Your task to perform on an android device: Open network settings Image 0: 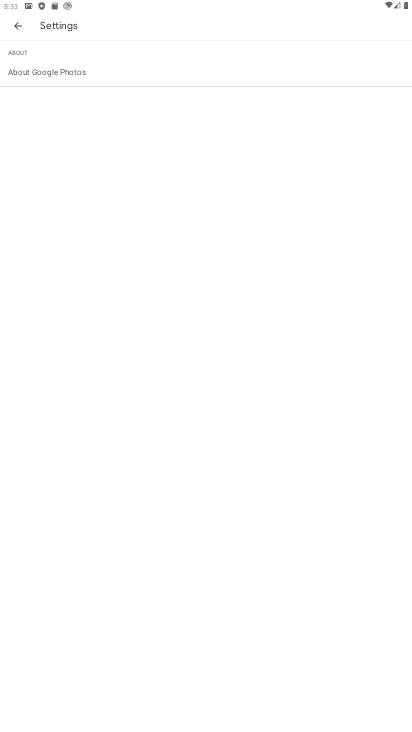
Step 0: press home button
Your task to perform on an android device: Open network settings Image 1: 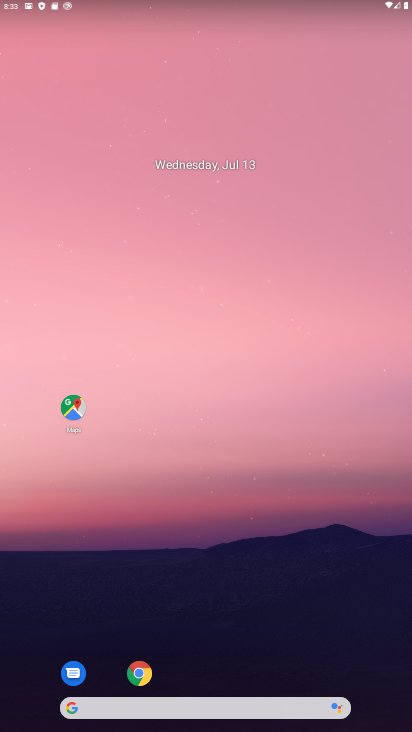
Step 1: drag from (179, 596) to (154, 403)
Your task to perform on an android device: Open network settings Image 2: 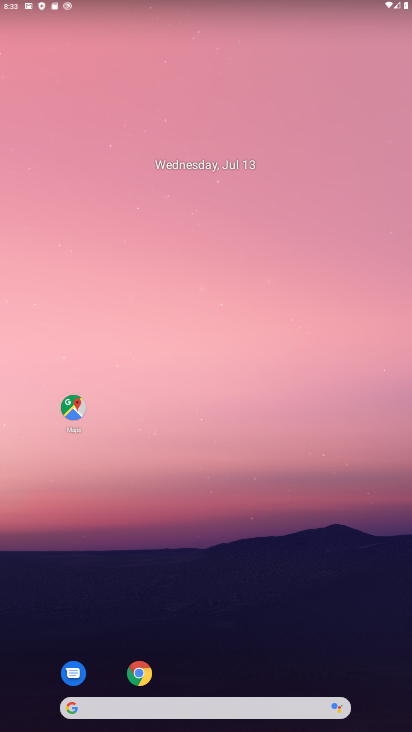
Step 2: drag from (211, 680) to (216, 304)
Your task to perform on an android device: Open network settings Image 3: 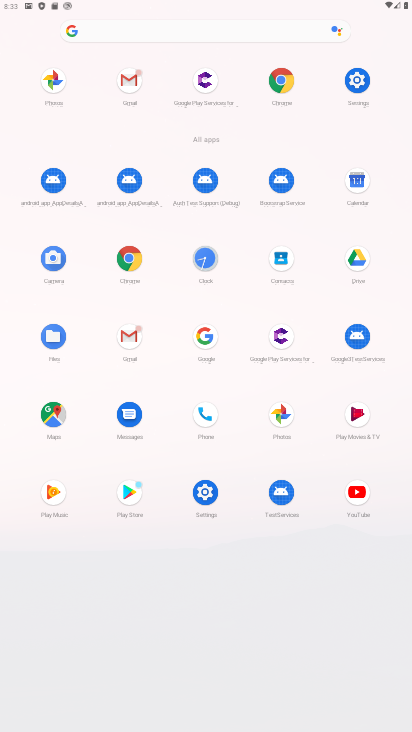
Step 3: click (358, 80)
Your task to perform on an android device: Open network settings Image 4: 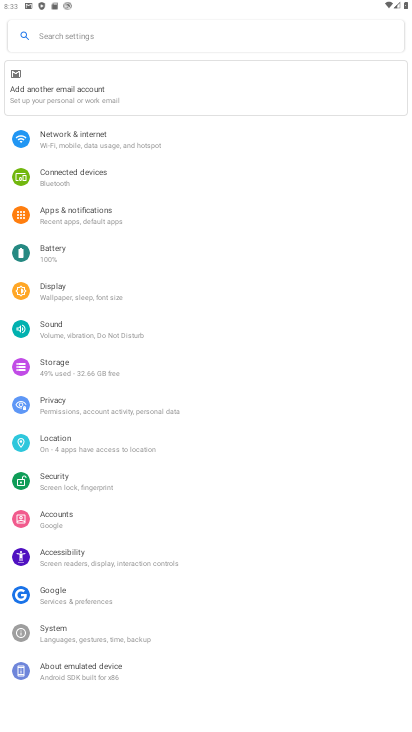
Step 4: click (77, 141)
Your task to perform on an android device: Open network settings Image 5: 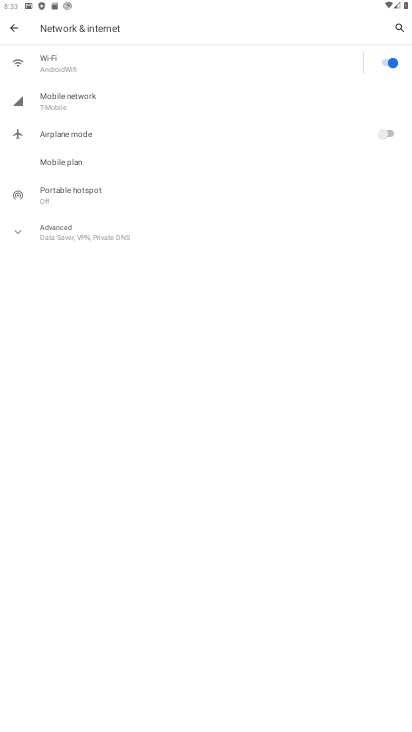
Step 5: click (79, 234)
Your task to perform on an android device: Open network settings Image 6: 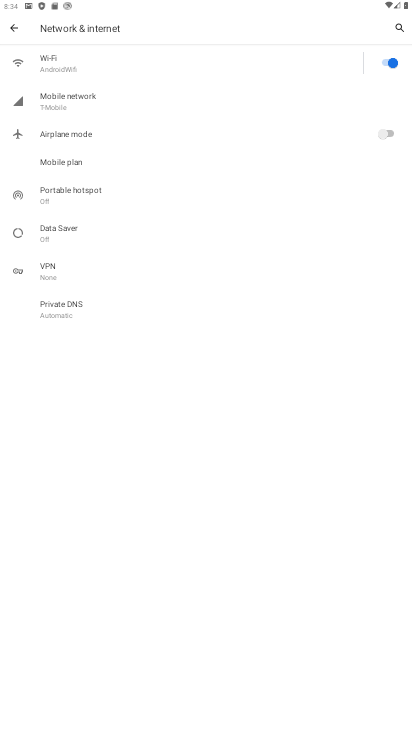
Step 6: task complete